Your task to perform on an android device: turn on wifi Image 0: 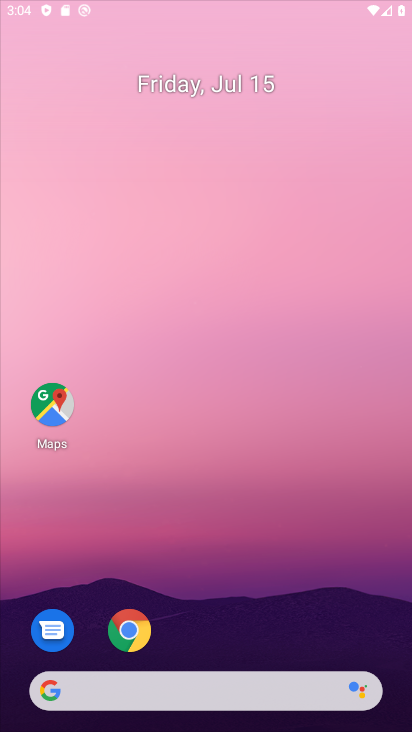
Step 0: click (393, 45)
Your task to perform on an android device: turn on wifi Image 1: 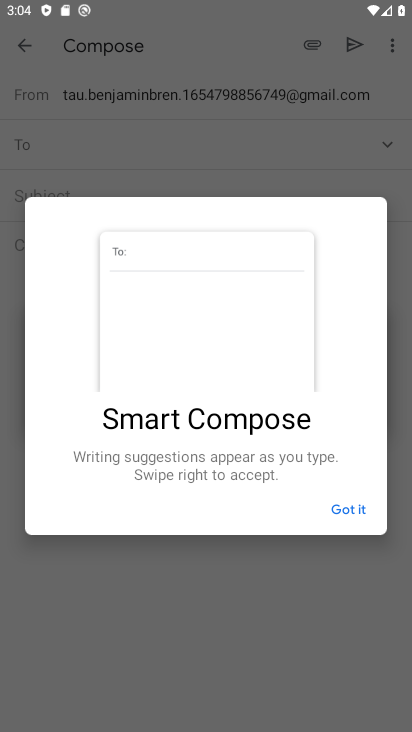
Step 1: press home button
Your task to perform on an android device: turn on wifi Image 2: 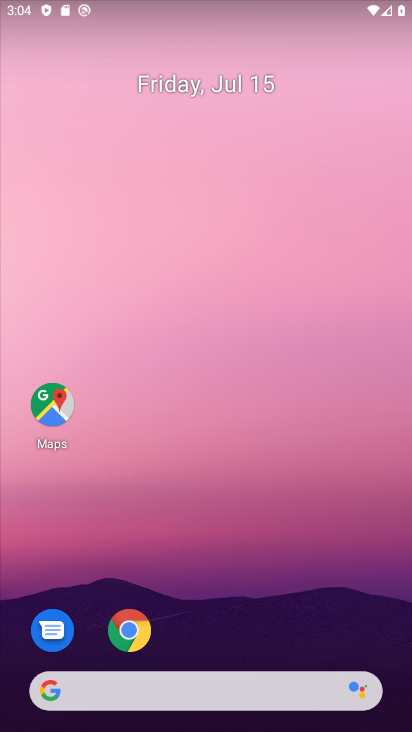
Step 2: drag from (213, 671) to (250, 7)
Your task to perform on an android device: turn on wifi Image 3: 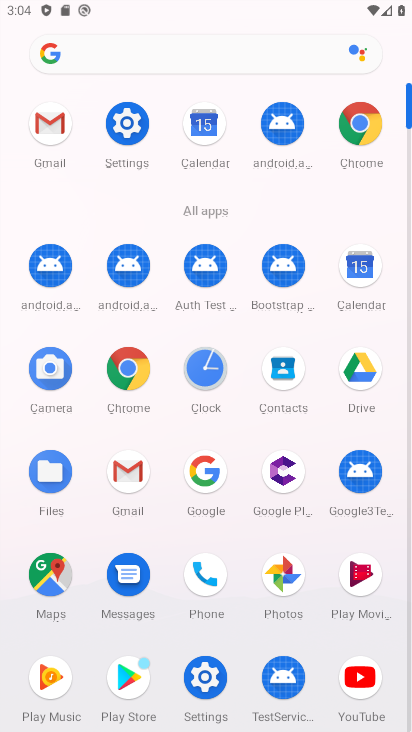
Step 3: click (120, 131)
Your task to perform on an android device: turn on wifi Image 4: 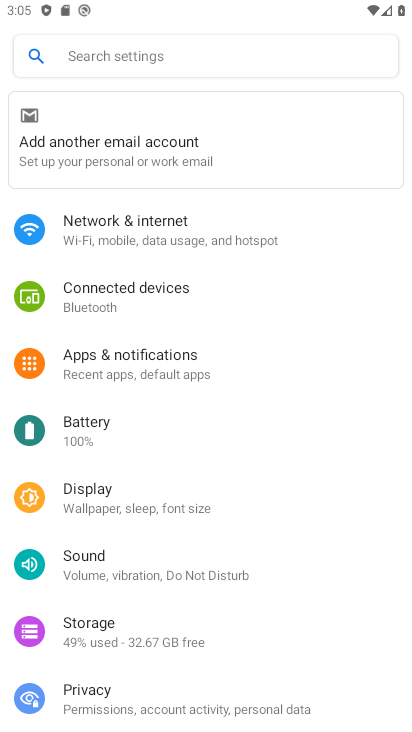
Step 4: click (202, 222)
Your task to perform on an android device: turn on wifi Image 5: 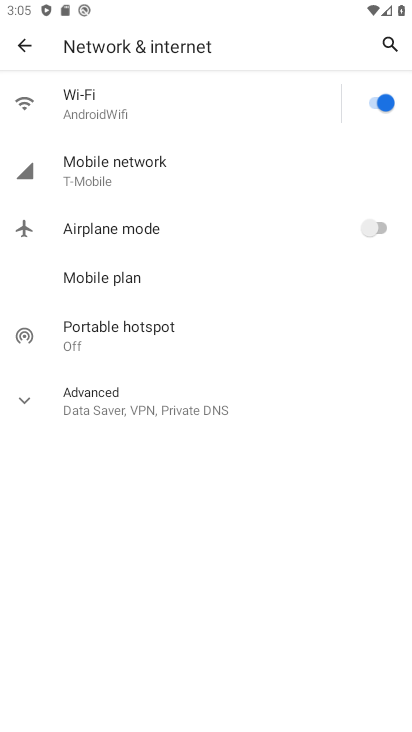
Step 5: task complete